Your task to perform on an android device: Show me popular games on the Play Store Image 0: 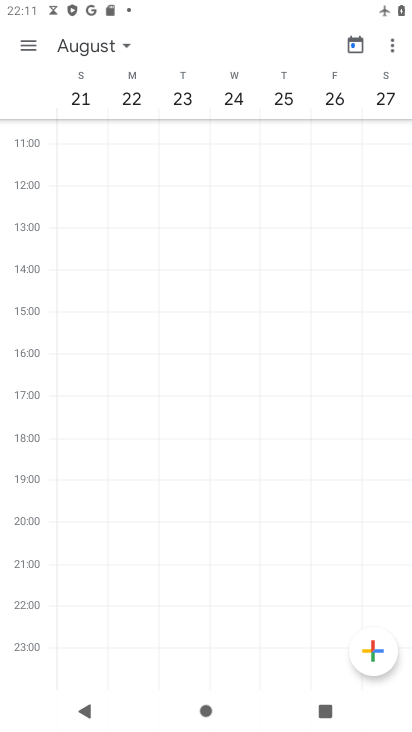
Step 0: press home button
Your task to perform on an android device: Show me popular games on the Play Store Image 1: 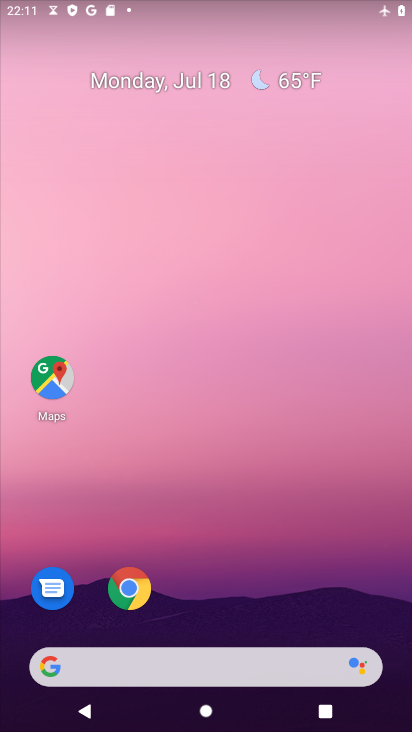
Step 1: drag from (222, 668) to (234, 152)
Your task to perform on an android device: Show me popular games on the Play Store Image 2: 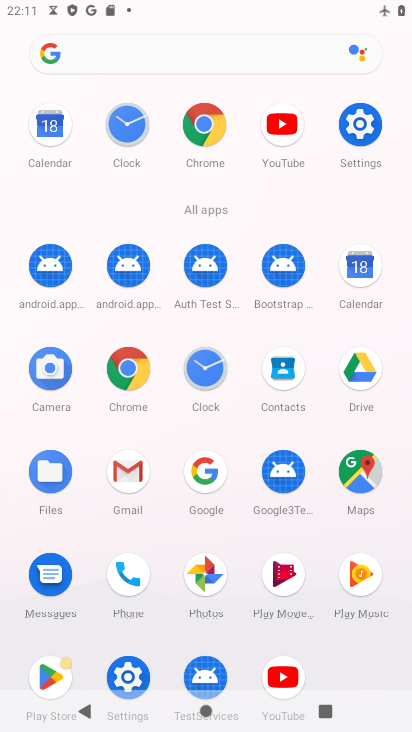
Step 2: drag from (169, 516) to (167, 255)
Your task to perform on an android device: Show me popular games on the Play Store Image 3: 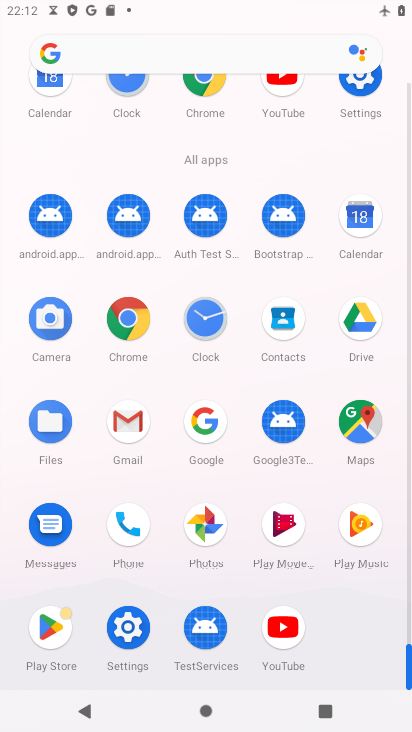
Step 3: click (51, 625)
Your task to perform on an android device: Show me popular games on the Play Store Image 4: 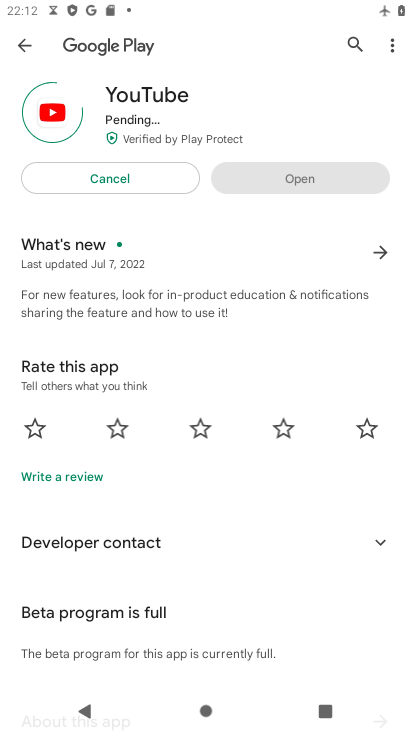
Step 4: press back button
Your task to perform on an android device: Show me popular games on the Play Store Image 5: 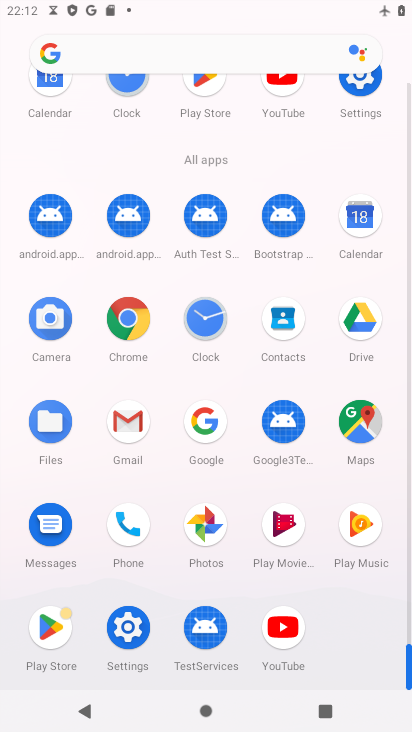
Step 5: click (54, 628)
Your task to perform on an android device: Show me popular games on the Play Store Image 6: 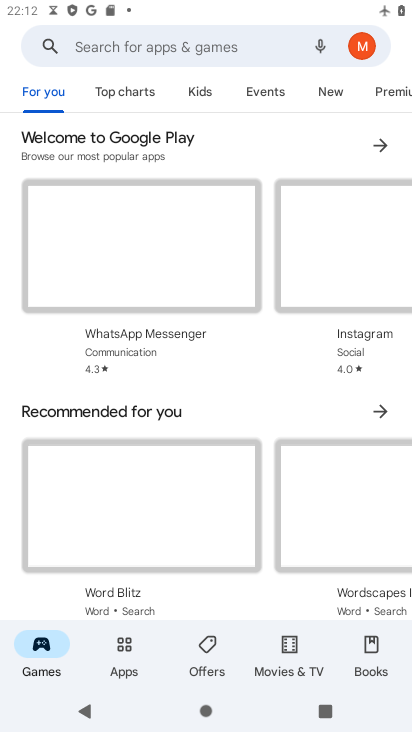
Step 6: click (247, 46)
Your task to perform on an android device: Show me popular games on the Play Store Image 7: 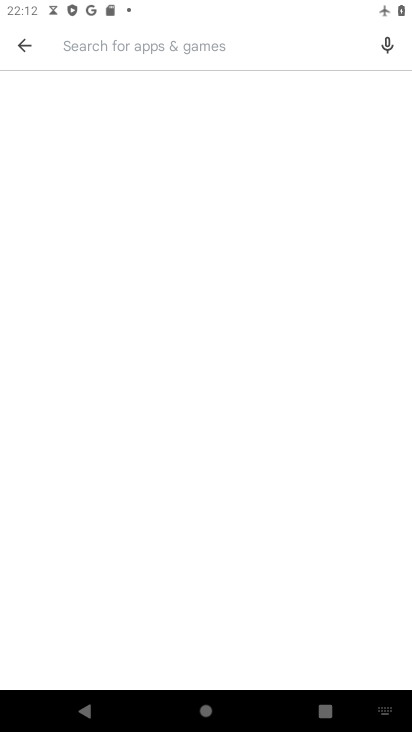
Step 7: type "popular games"
Your task to perform on an android device: Show me popular games on the Play Store Image 8: 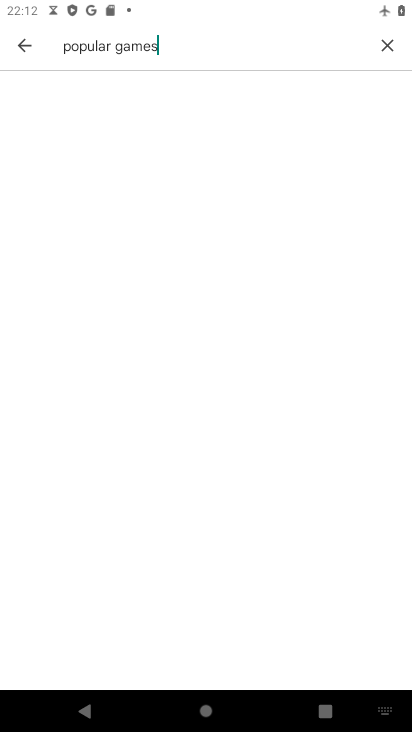
Step 8: task complete